Your task to perform on an android device: Go to eBay Image 0: 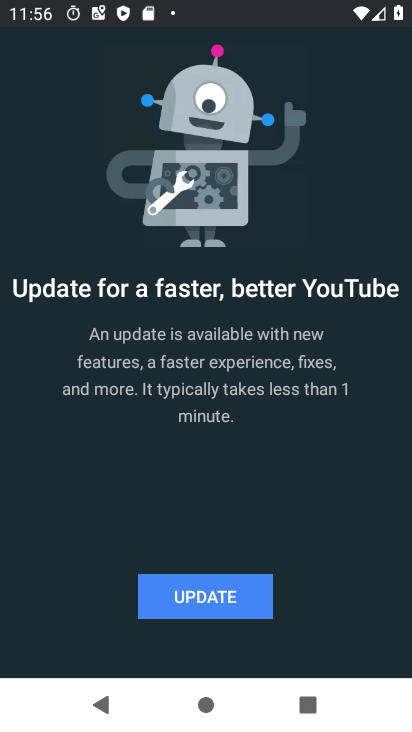
Step 0: press home button
Your task to perform on an android device: Go to eBay Image 1: 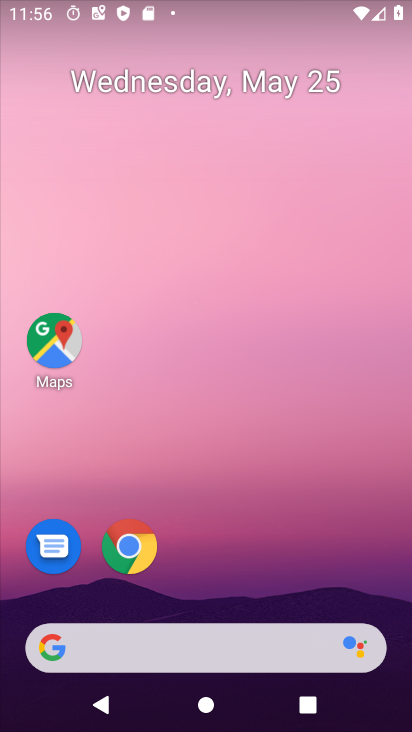
Step 1: click (132, 543)
Your task to perform on an android device: Go to eBay Image 2: 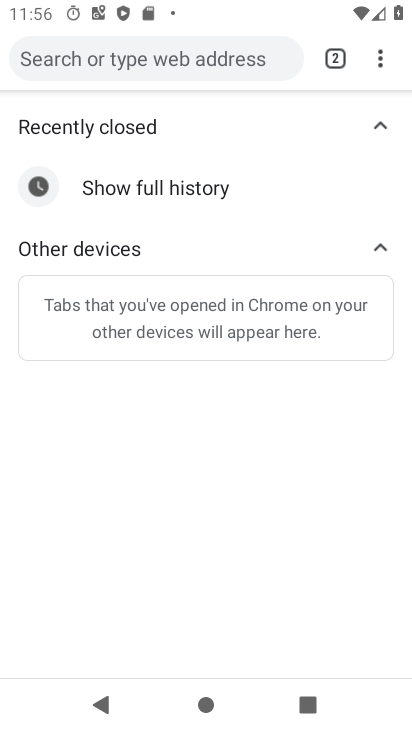
Step 2: click (187, 54)
Your task to perform on an android device: Go to eBay Image 3: 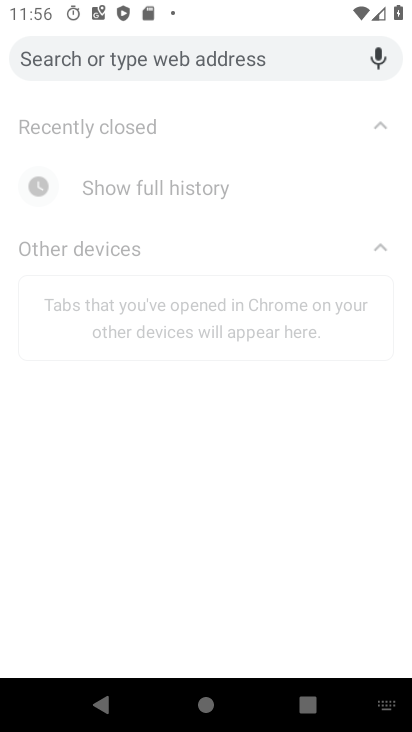
Step 3: type "ebay"
Your task to perform on an android device: Go to eBay Image 4: 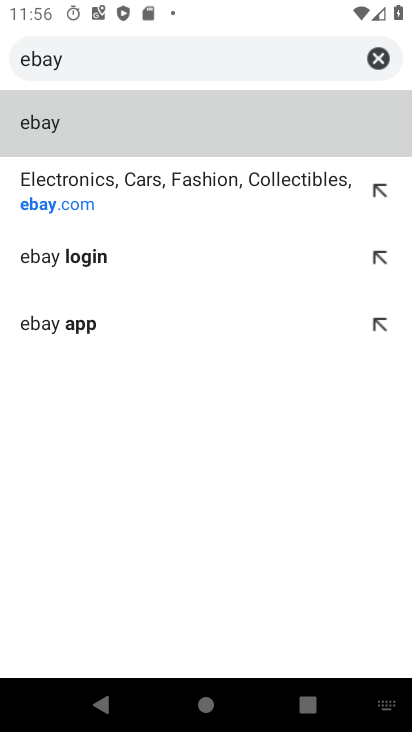
Step 4: click (50, 128)
Your task to perform on an android device: Go to eBay Image 5: 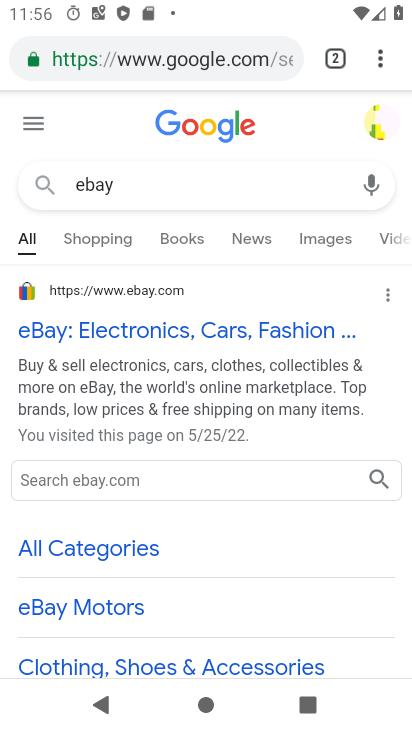
Step 5: click (98, 331)
Your task to perform on an android device: Go to eBay Image 6: 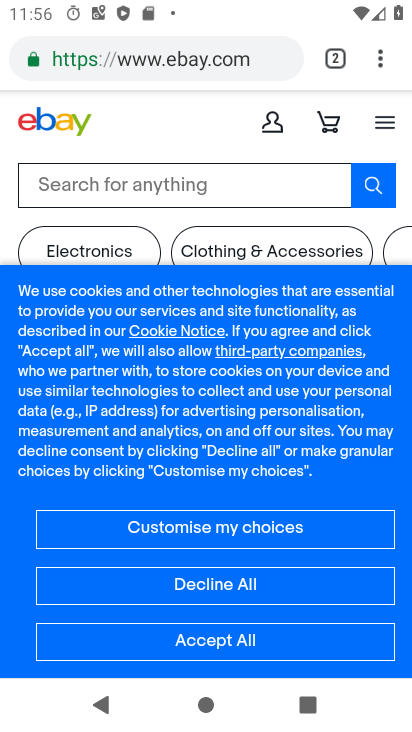
Step 6: task complete